Your task to perform on an android device: search for starred emails in the gmail app Image 0: 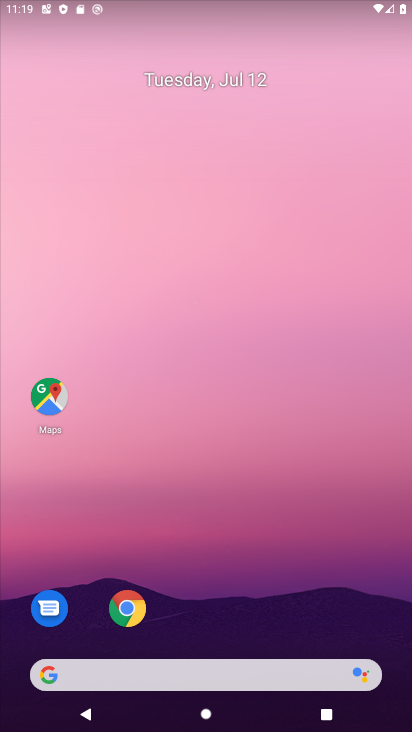
Step 0: drag from (177, 332) to (167, 145)
Your task to perform on an android device: search for starred emails in the gmail app Image 1: 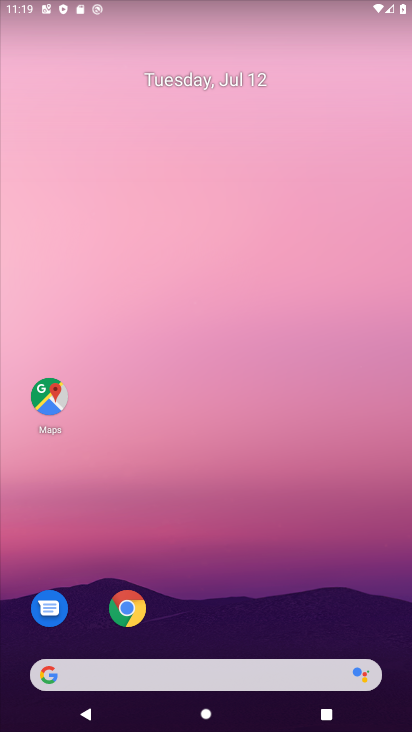
Step 1: drag from (190, 614) to (183, 43)
Your task to perform on an android device: search for starred emails in the gmail app Image 2: 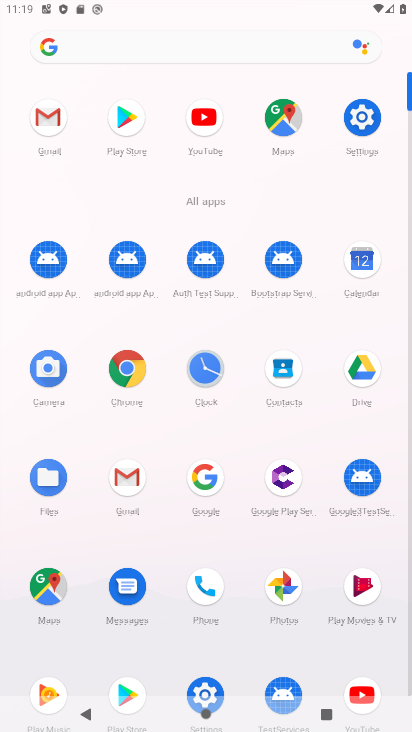
Step 2: click (61, 111)
Your task to perform on an android device: search for starred emails in the gmail app Image 3: 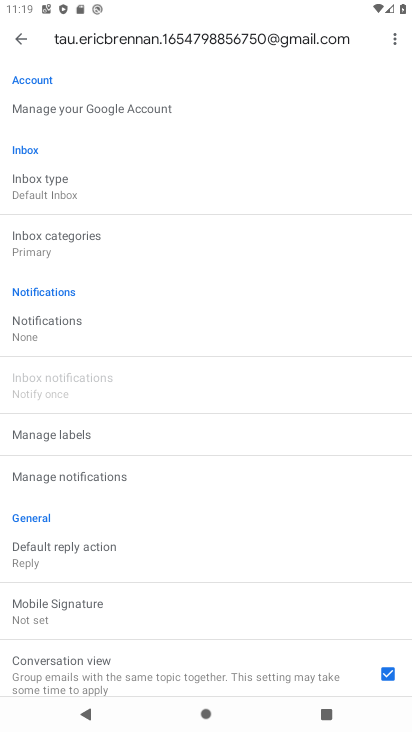
Step 3: click (27, 42)
Your task to perform on an android device: search for starred emails in the gmail app Image 4: 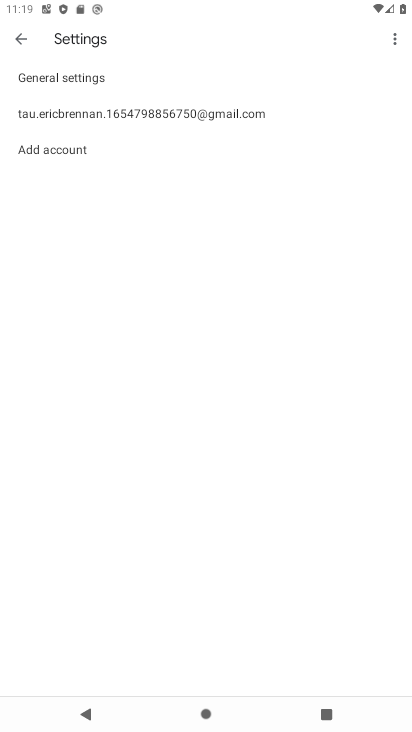
Step 4: click (27, 42)
Your task to perform on an android device: search for starred emails in the gmail app Image 5: 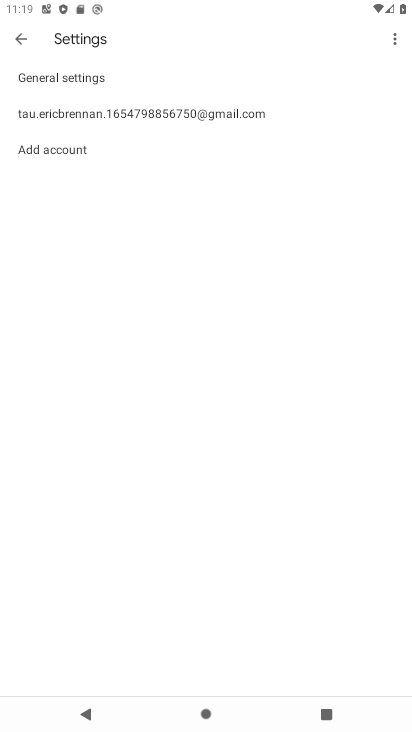
Step 5: click (27, 42)
Your task to perform on an android device: search for starred emails in the gmail app Image 6: 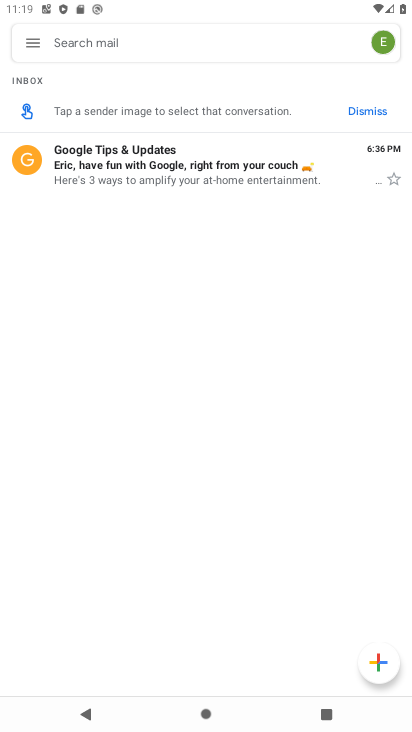
Step 6: click (19, 32)
Your task to perform on an android device: search for starred emails in the gmail app Image 7: 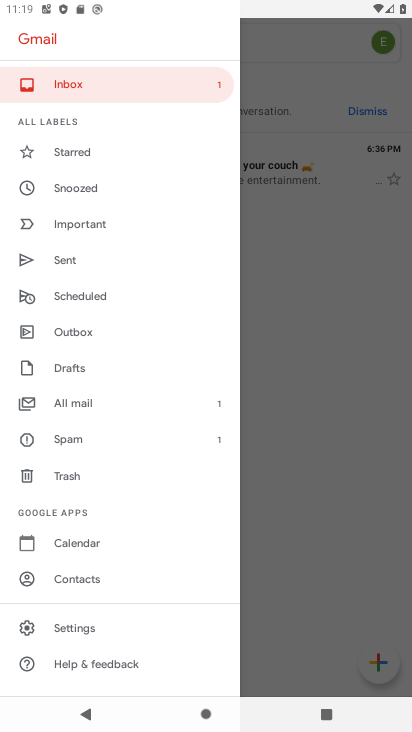
Step 7: click (101, 171)
Your task to perform on an android device: search for starred emails in the gmail app Image 8: 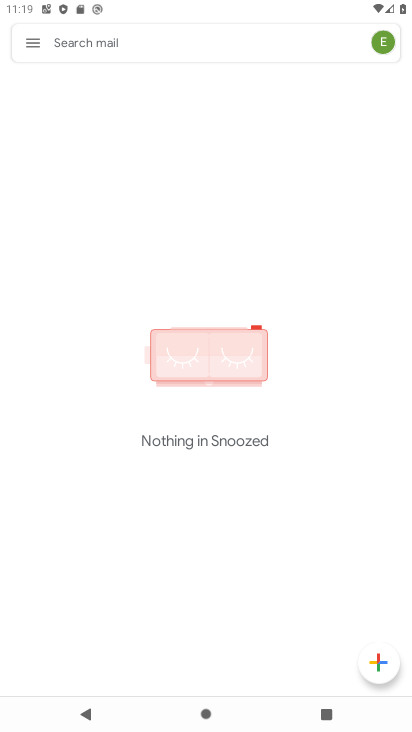
Step 8: click (27, 34)
Your task to perform on an android device: search for starred emails in the gmail app Image 9: 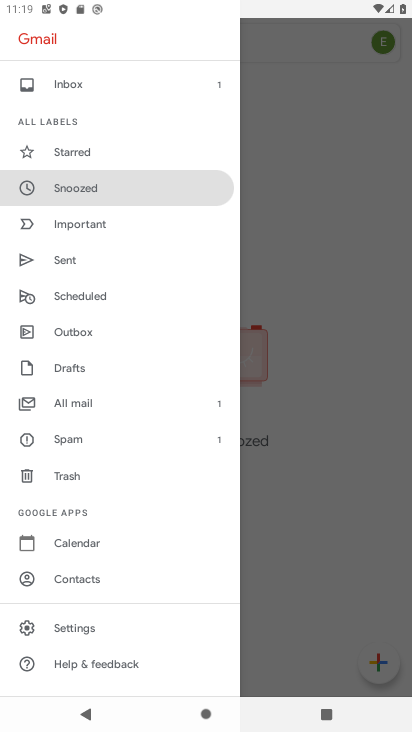
Step 9: click (98, 150)
Your task to perform on an android device: search for starred emails in the gmail app Image 10: 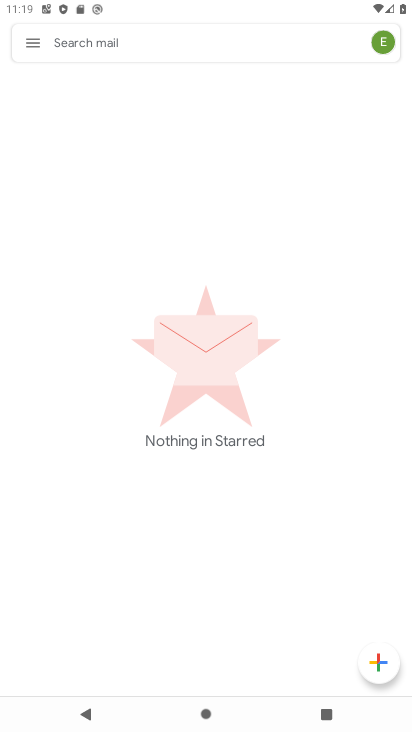
Step 10: task complete